Your task to perform on an android device: check the backup settings in the google photos Image 0: 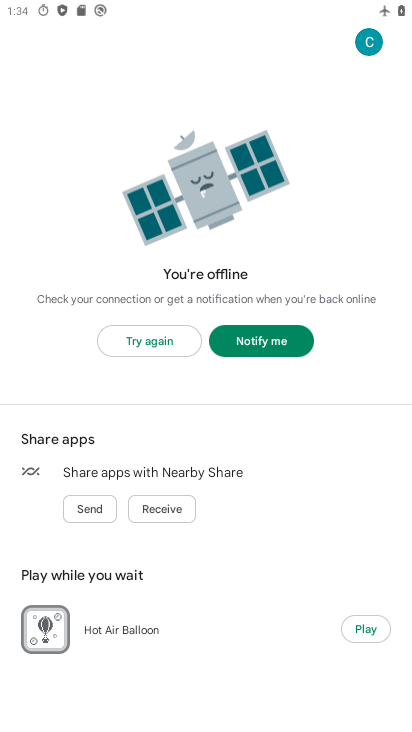
Step 0: press home button
Your task to perform on an android device: check the backup settings in the google photos Image 1: 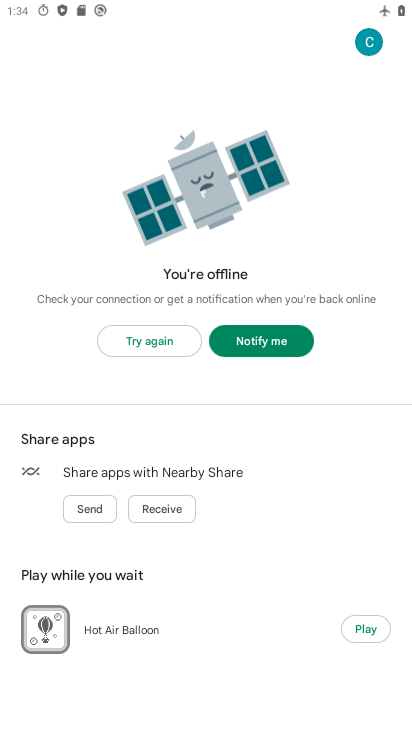
Step 1: press home button
Your task to perform on an android device: check the backup settings in the google photos Image 2: 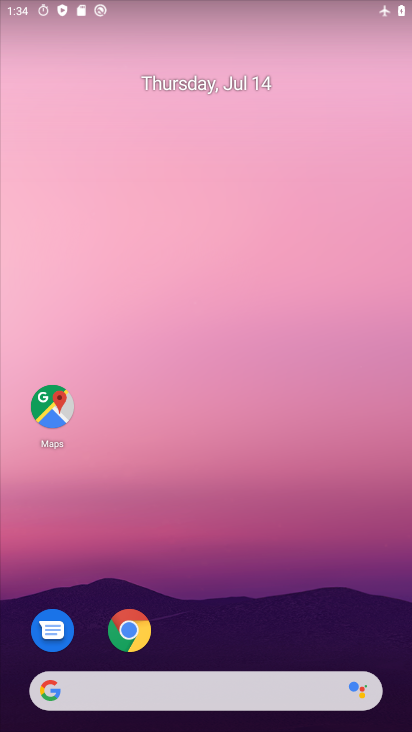
Step 2: drag from (198, 631) to (241, 368)
Your task to perform on an android device: check the backup settings in the google photos Image 3: 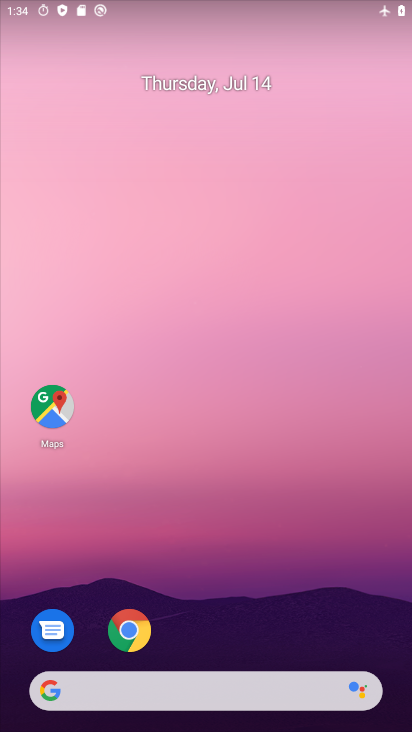
Step 3: drag from (179, 616) to (248, 225)
Your task to perform on an android device: check the backup settings in the google photos Image 4: 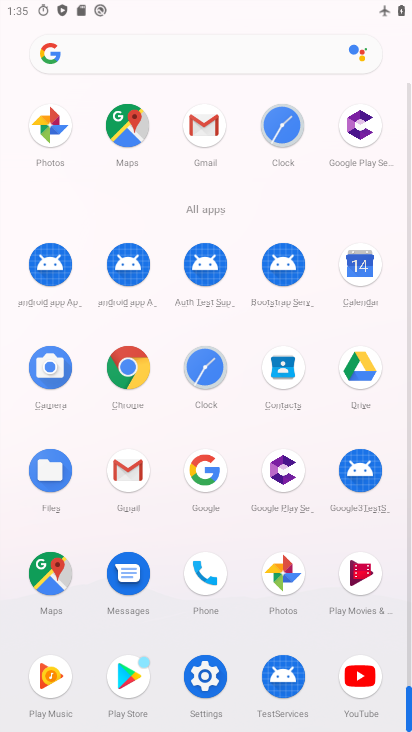
Step 4: click (275, 573)
Your task to perform on an android device: check the backup settings in the google photos Image 5: 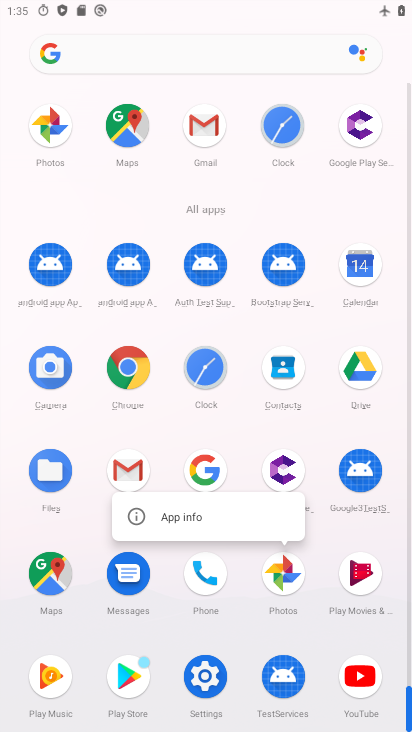
Step 5: click (212, 515)
Your task to perform on an android device: check the backup settings in the google photos Image 6: 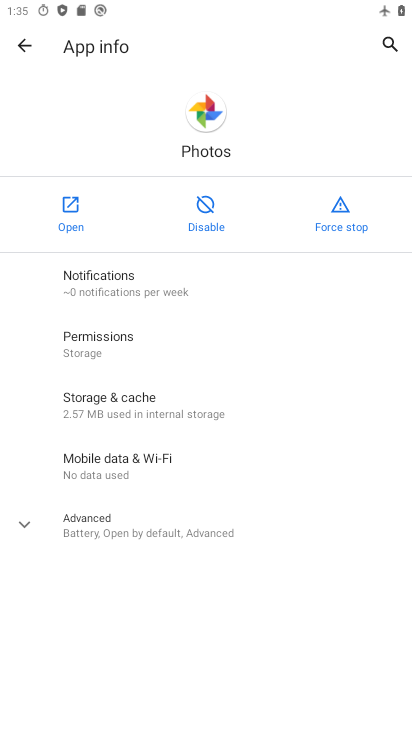
Step 6: click (76, 211)
Your task to perform on an android device: check the backup settings in the google photos Image 7: 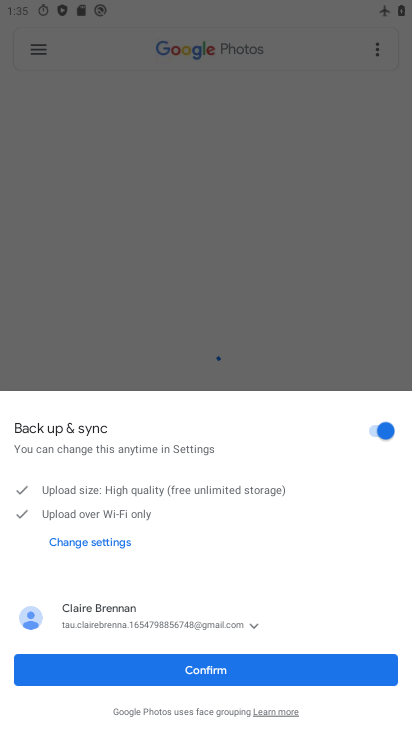
Step 7: click (193, 661)
Your task to perform on an android device: check the backup settings in the google photos Image 8: 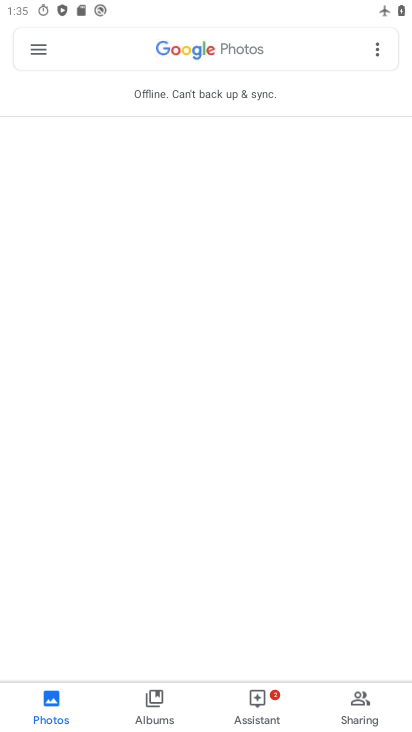
Step 8: drag from (238, 614) to (262, 262)
Your task to perform on an android device: check the backup settings in the google photos Image 9: 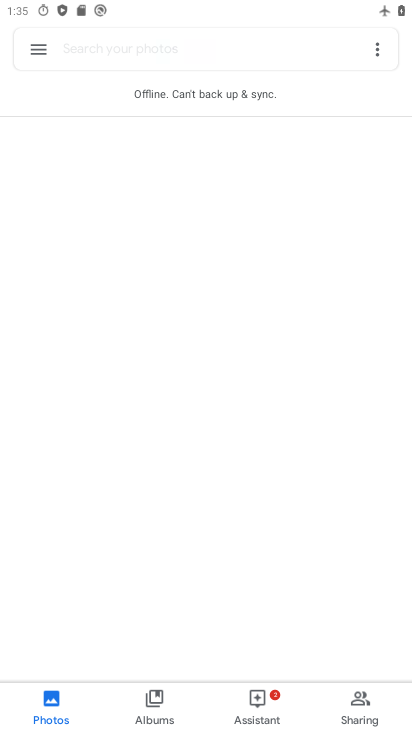
Step 9: click (38, 57)
Your task to perform on an android device: check the backup settings in the google photos Image 10: 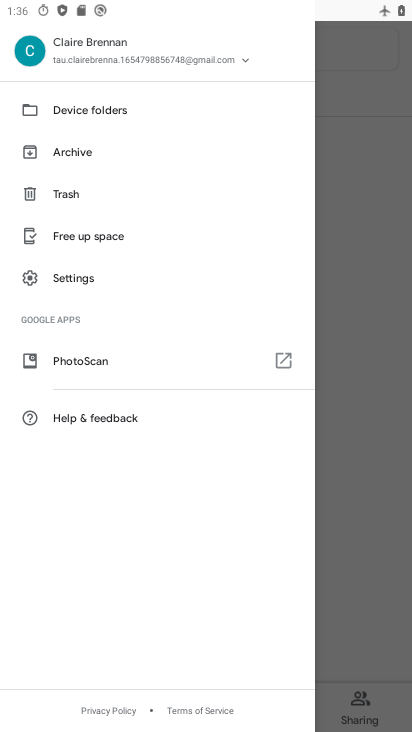
Step 10: drag from (119, 446) to (129, 228)
Your task to perform on an android device: check the backup settings in the google photos Image 11: 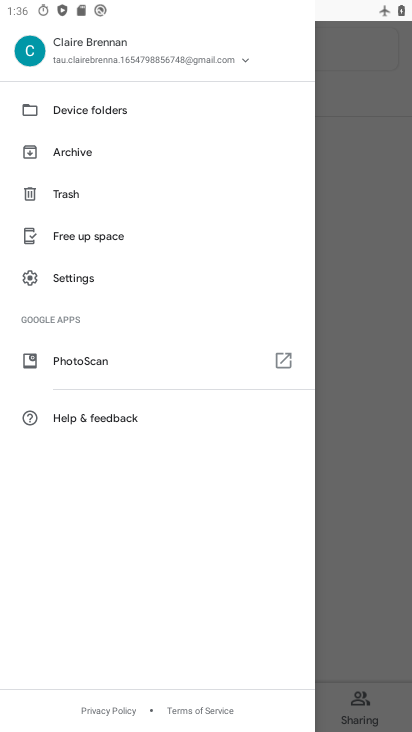
Step 11: click (89, 277)
Your task to perform on an android device: check the backup settings in the google photos Image 12: 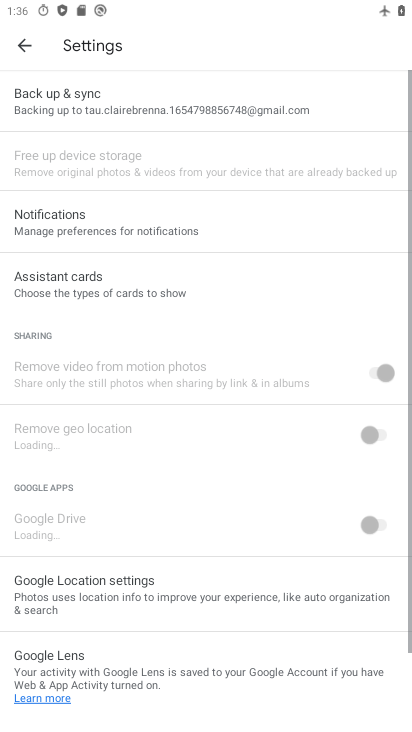
Step 12: drag from (202, 566) to (215, 224)
Your task to perform on an android device: check the backup settings in the google photos Image 13: 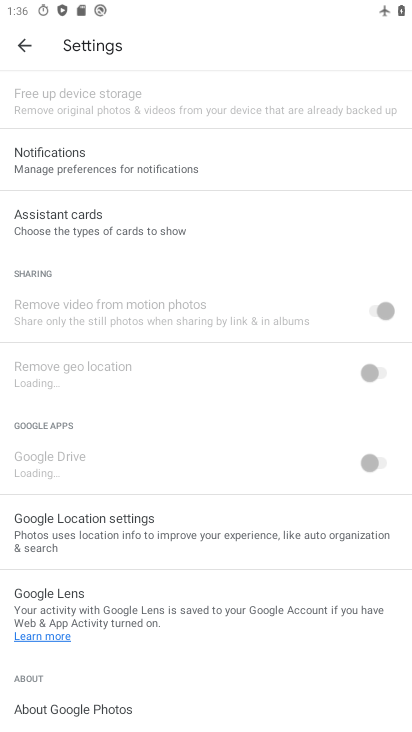
Step 13: drag from (156, 666) to (245, 336)
Your task to perform on an android device: check the backup settings in the google photos Image 14: 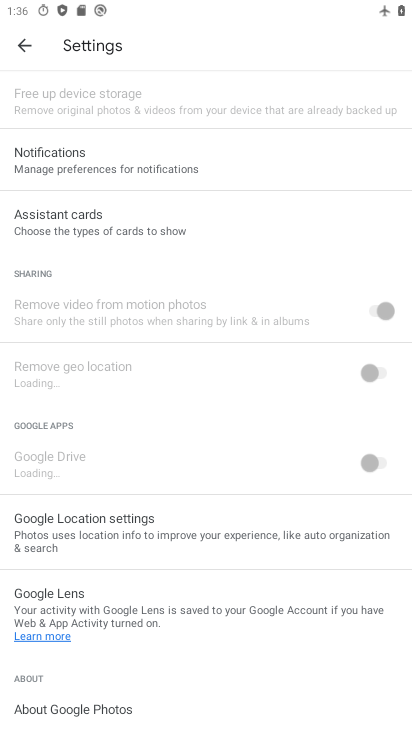
Step 14: drag from (183, 573) to (197, 348)
Your task to perform on an android device: check the backup settings in the google photos Image 15: 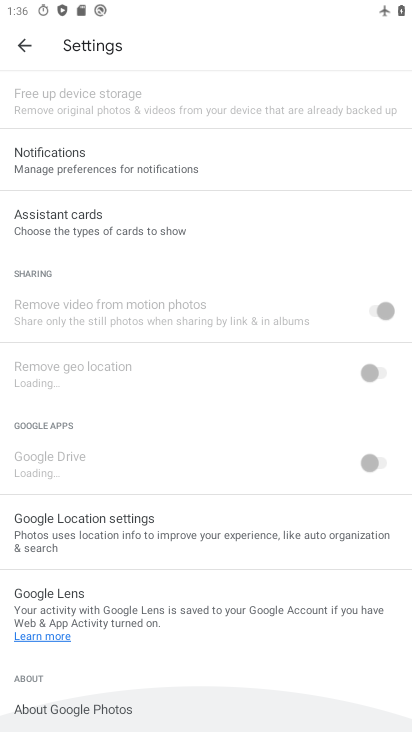
Step 15: drag from (223, 223) to (203, 697)
Your task to perform on an android device: check the backup settings in the google photos Image 16: 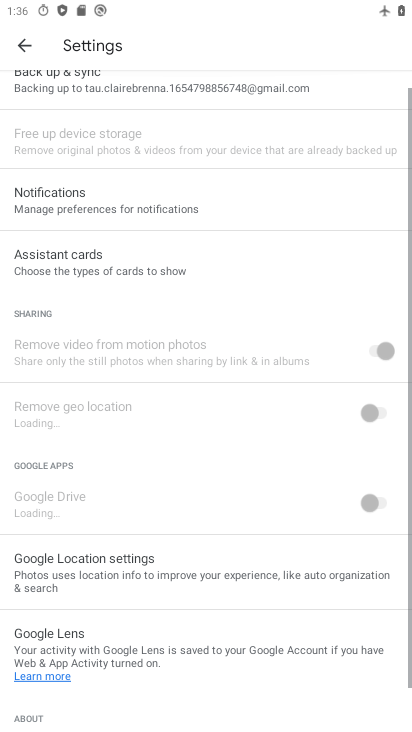
Step 16: drag from (176, 158) to (273, 716)
Your task to perform on an android device: check the backup settings in the google photos Image 17: 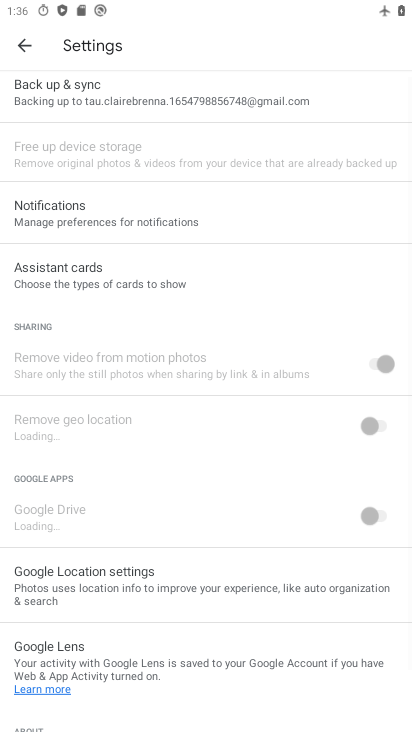
Step 17: click (168, 94)
Your task to perform on an android device: check the backup settings in the google photos Image 18: 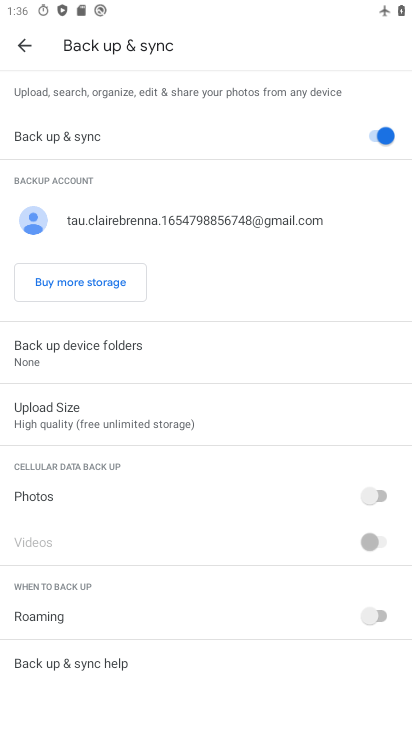
Step 18: task complete